Your task to perform on an android device: What's on my calendar today? Image 0: 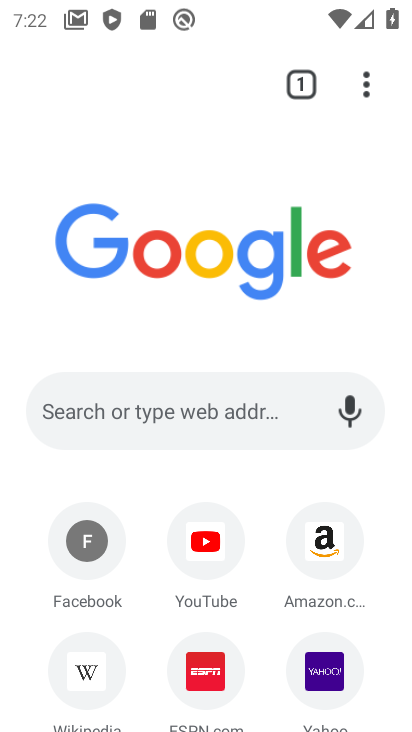
Step 0: press home button
Your task to perform on an android device: What's on my calendar today? Image 1: 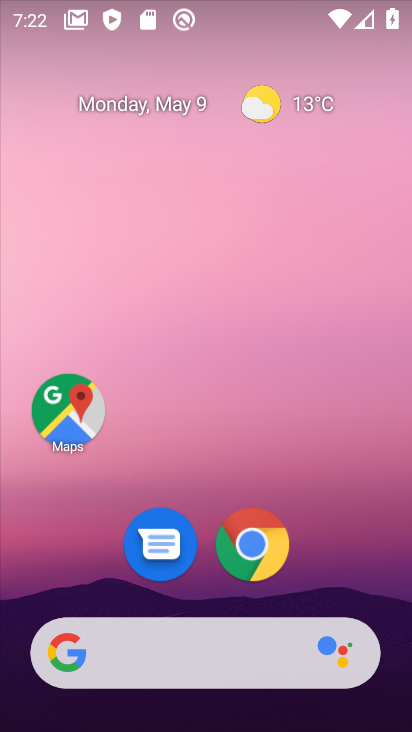
Step 1: drag from (351, 565) to (9, 258)
Your task to perform on an android device: What's on my calendar today? Image 2: 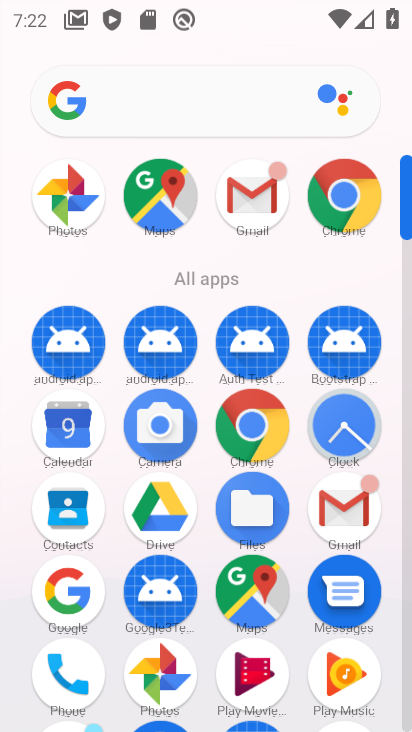
Step 2: click (66, 459)
Your task to perform on an android device: What's on my calendar today? Image 3: 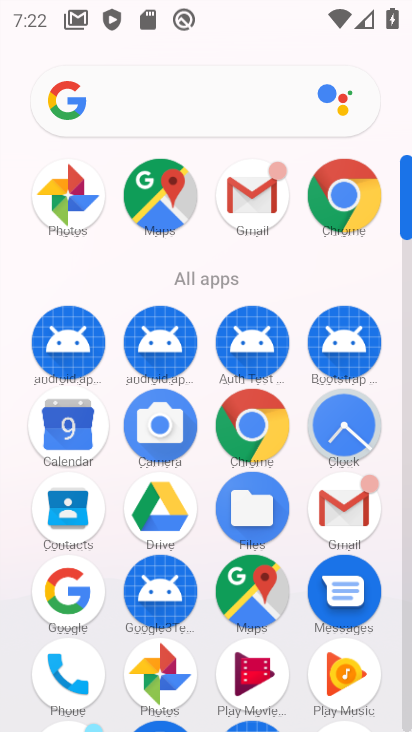
Step 3: click (70, 449)
Your task to perform on an android device: What's on my calendar today? Image 4: 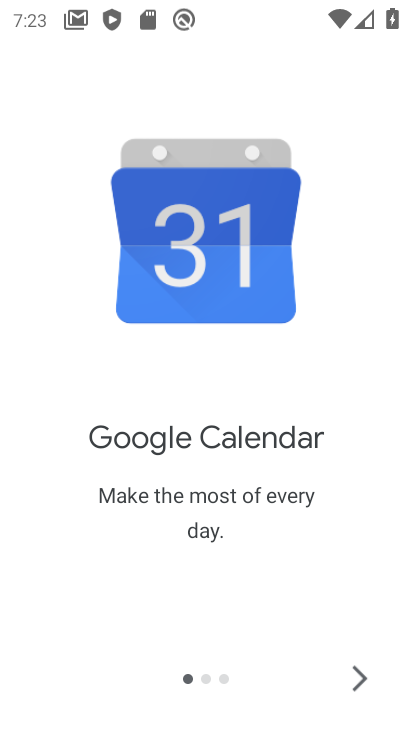
Step 4: click (361, 674)
Your task to perform on an android device: What's on my calendar today? Image 5: 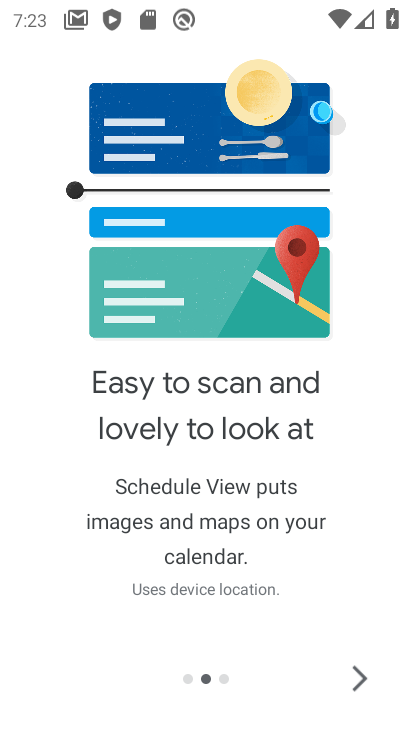
Step 5: click (361, 668)
Your task to perform on an android device: What's on my calendar today? Image 6: 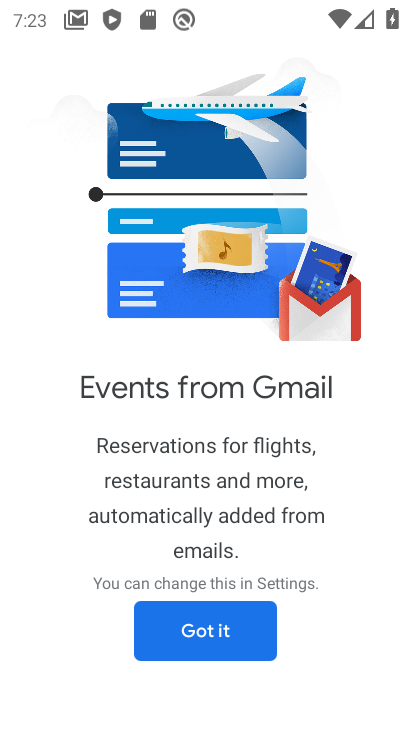
Step 6: click (249, 651)
Your task to perform on an android device: What's on my calendar today? Image 7: 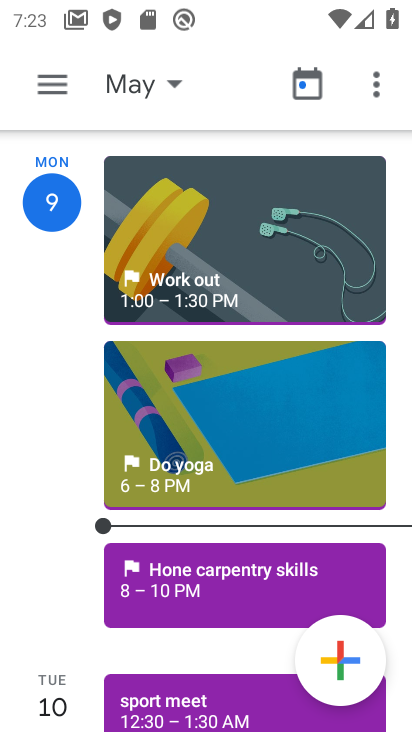
Step 7: click (153, 92)
Your task to perform on an android device: What's on my calendar today? Image 8: 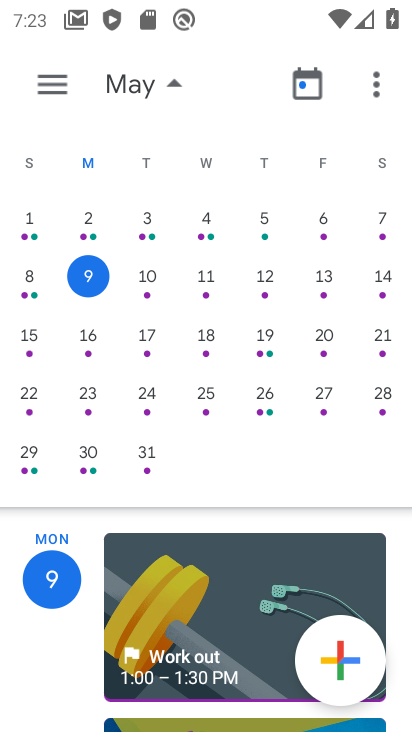
Step 8: task complete